Your task to perform on an android device: snooze an email in the gmail app Image 0: 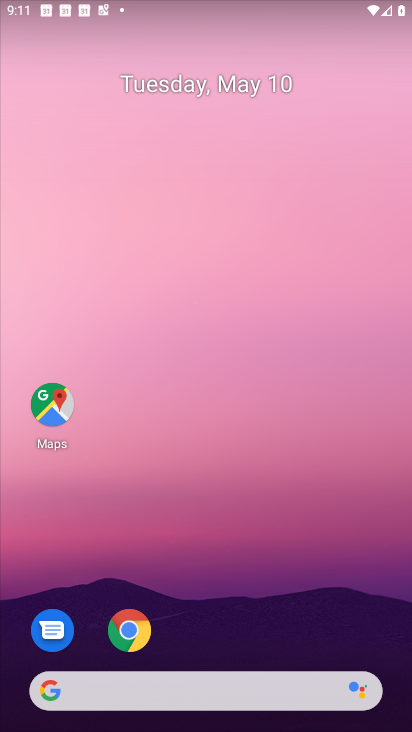
Step 0: drag from (198, 721) to (112, 1)
Your task to perform on an android device: snooze an email in the gmail app Image 1: 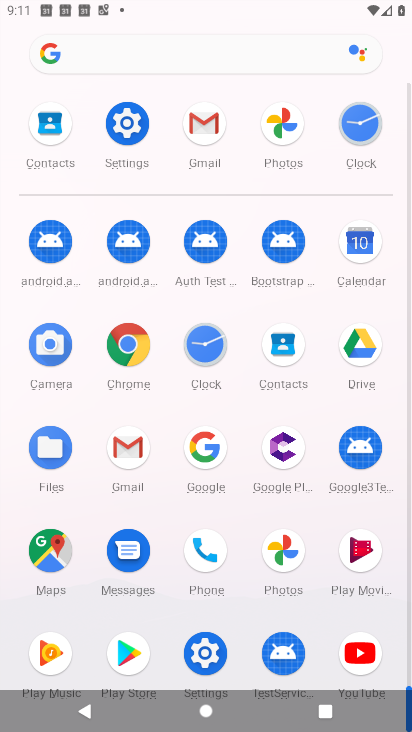
Step 1: click (200, 125)
Your task to perform on an android device: snooze an email in the gmail app Image 2: 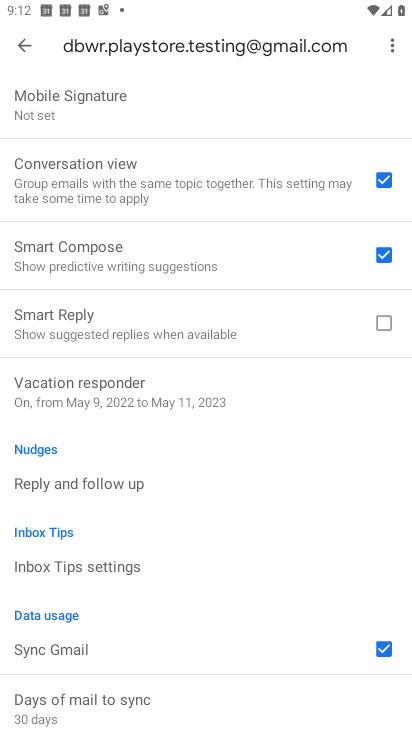
Step 2: click (29, 44)
Your task to perform on an android device: snooze an email in the gmail app Image 3: 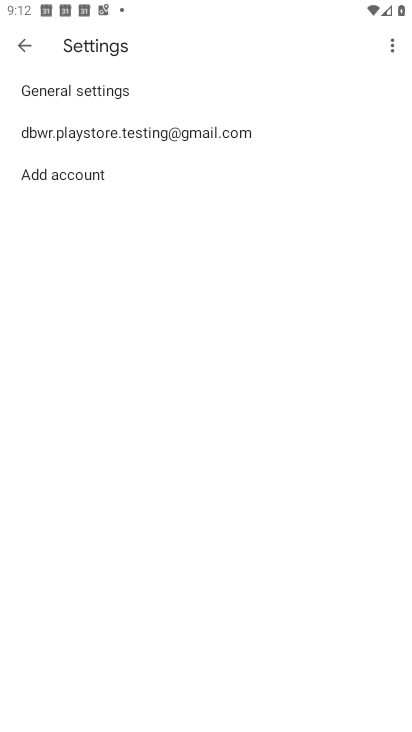
Step 3: click (33, 49)
Your task to perform on an android device: snooze an email in the gmail app Image 4: 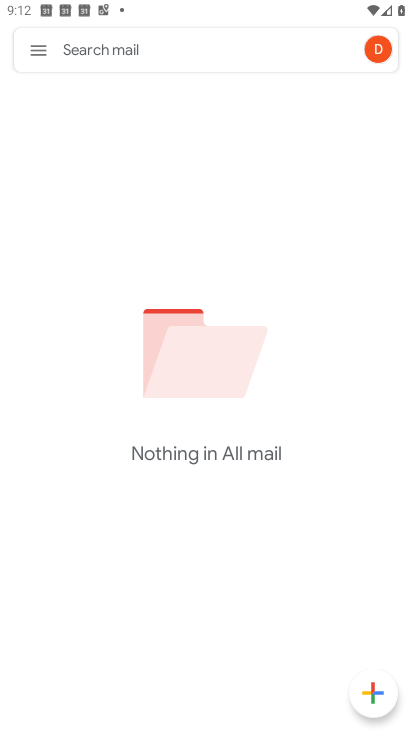
Step 4: task complete